Your task to perform on an android device: set default search engine in the chrome app Image 0: 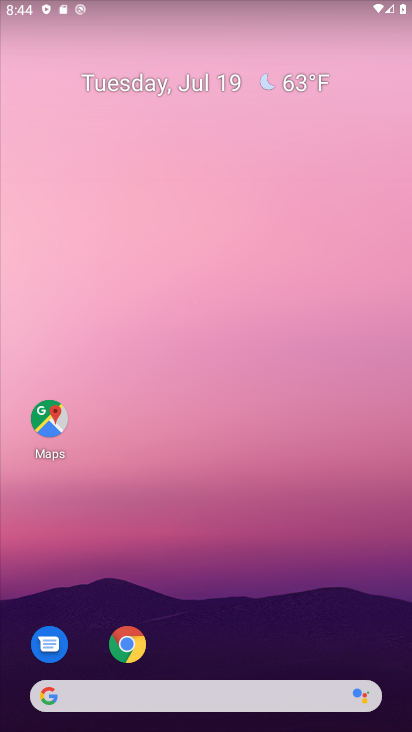
Step 0: drag from (263, 241) to (137, 229)
Your task to perform on an android device: set default search engine in the chrome app Image 1: 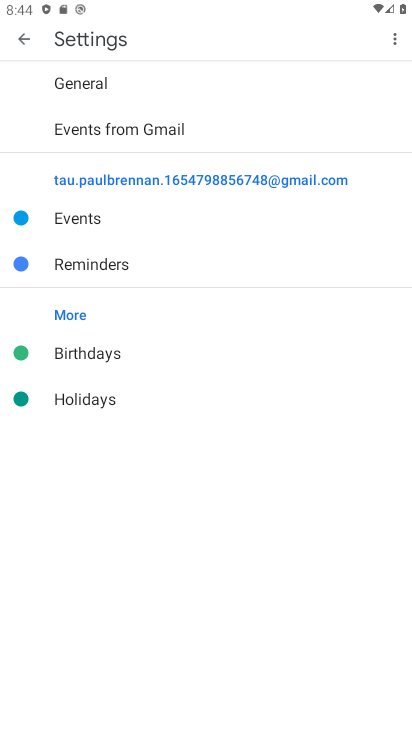
Step 1: click (21, 28)
Your task to perform on an android device: set default search engine in the chrome app Image 2: 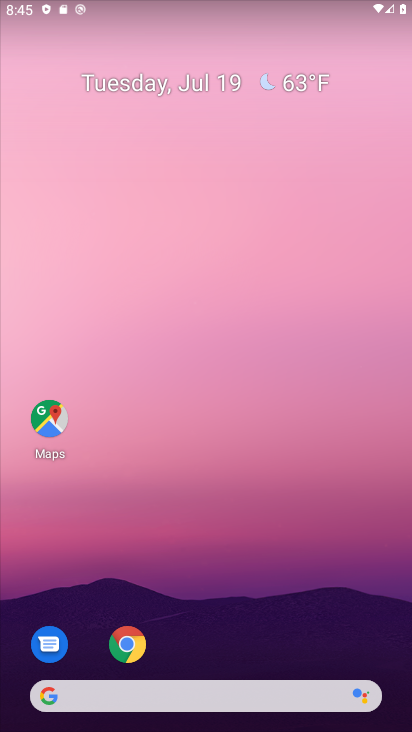
Step 2: drag from (186, 564) to (237, 161)
Your task to perform on an android device: set default search engine in the chrome app Image 3: 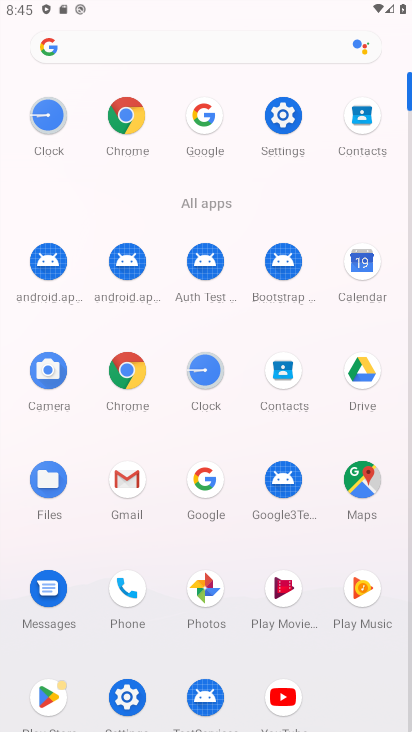
Step 3: click (120, 370)
Your task to perform on an android device: set default search engine in the chrome app Image 4: 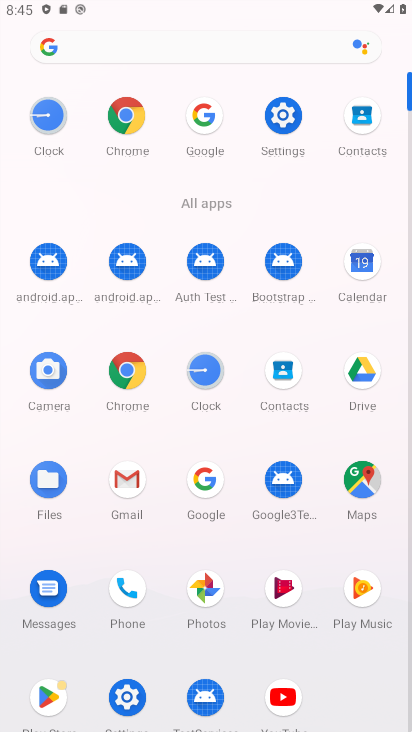
Step 4: click (120, 367)
Your task to perform on an android device: set default search engine in the chrome app Image 5: 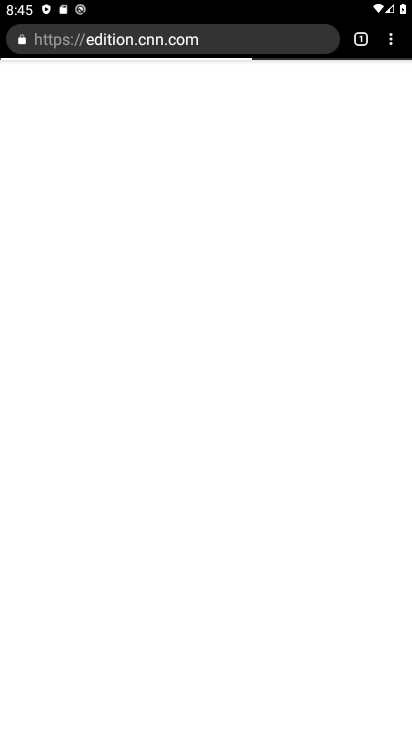
Step 5: press back button
Your task to perform on an android device: set default search engine in the chrome app Image 6: 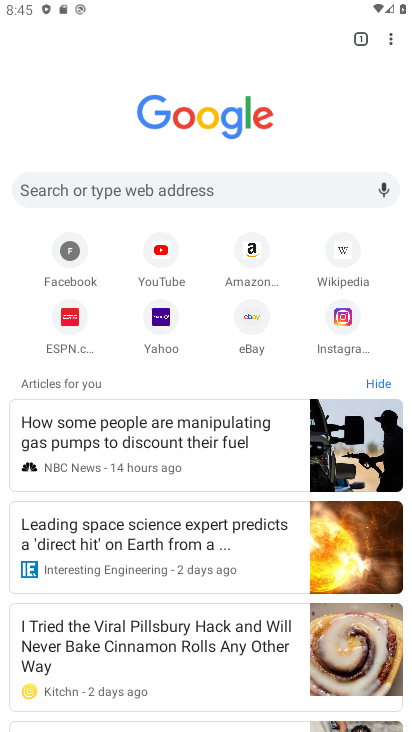
Step 6: click (393, 37)
Your task to perform on an android device: set default search engine in the chrome app Image 7: 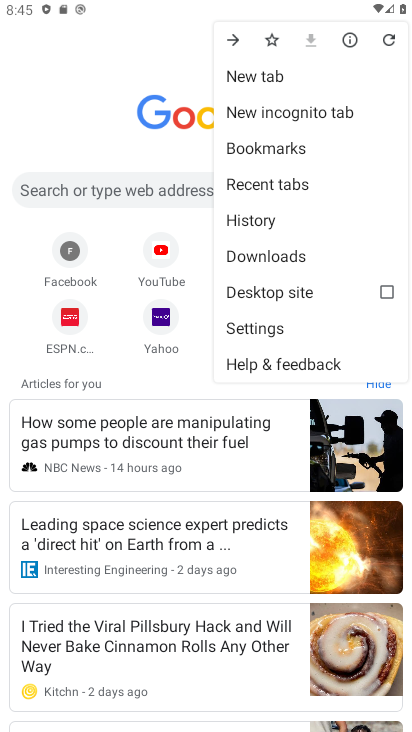
Step 7: click (256, 78)
Your task to perform on an android device: set default search engine in the chrome app Image 8: 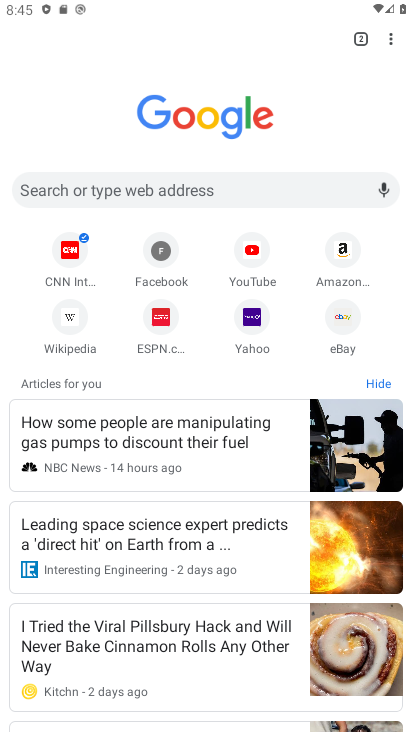
Step 8: drag from (388, 42) to (246, 340)
Your task to perform on an android device: set default search engine in the chrome app Image 9: 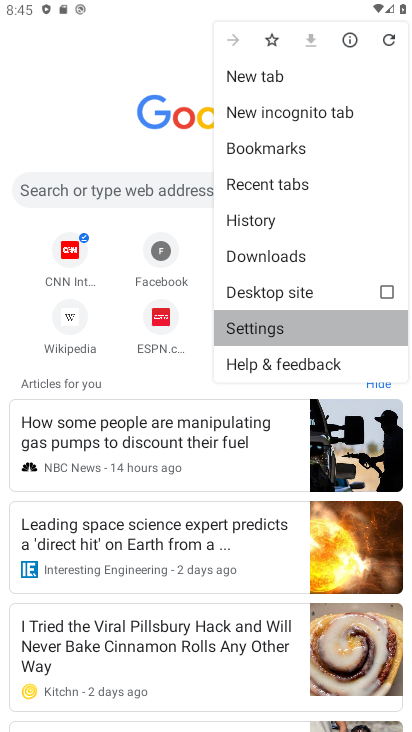
Step 9: click (245, 340)
Your task to perform on an android device: set default search engine in the chrome app Image 10: 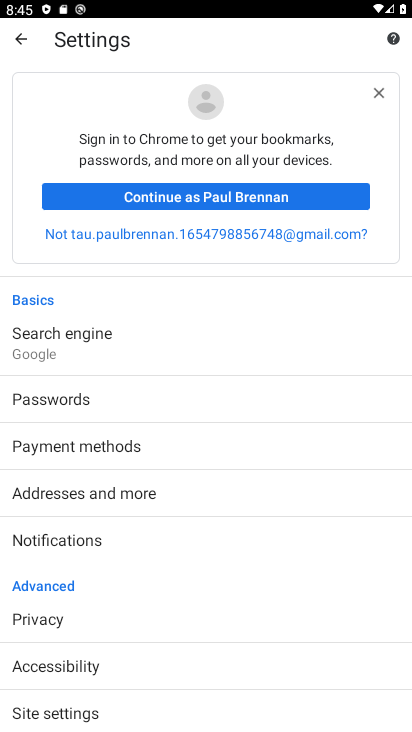
Step 10: click (39, 343)
Your task to perform on an android device: set default search engine in the chrome app Image 11: 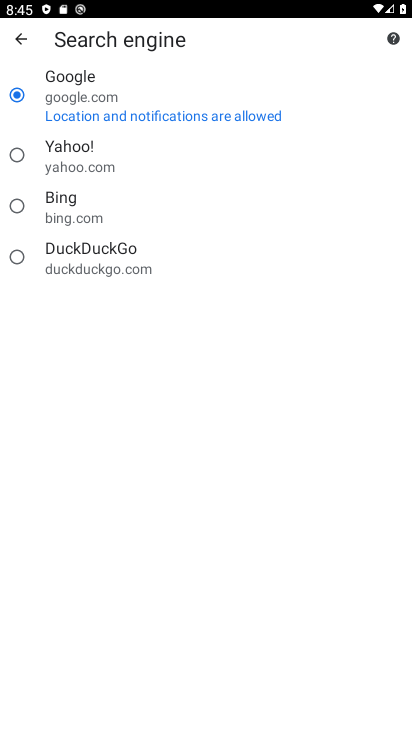
Step 11: click (15, 153)
Your task to perform on an android device: set default search engine in the chrome app Image 12: 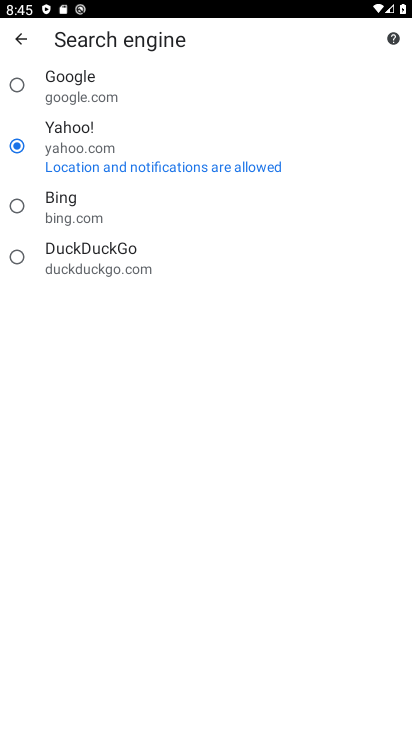
Step 12: task complete